Your task to perform on an android device: Go to sound settings Image 0: 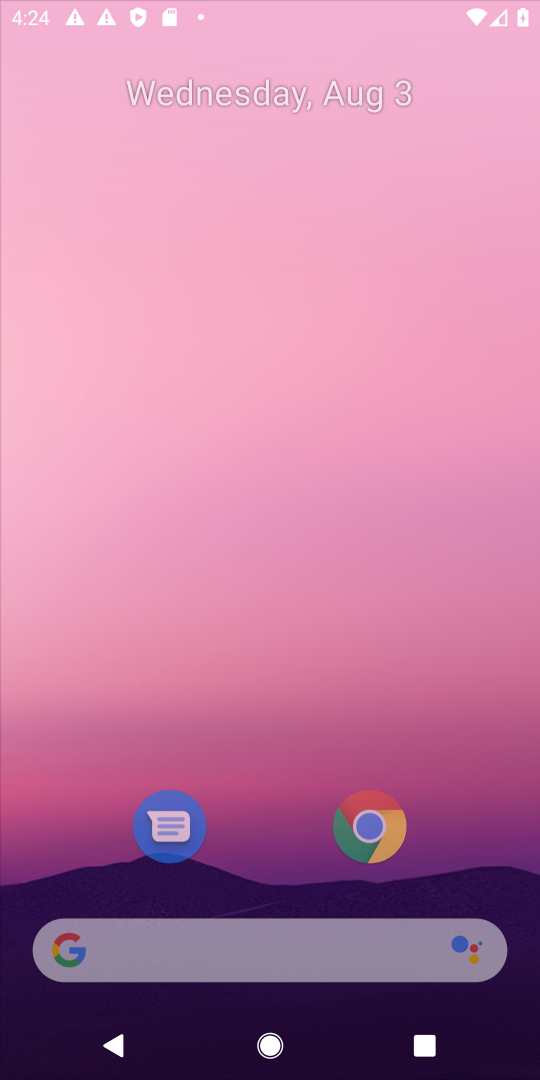
Step 0: press back button
Your task to perform on an android device: Go to sound settings Image 1: 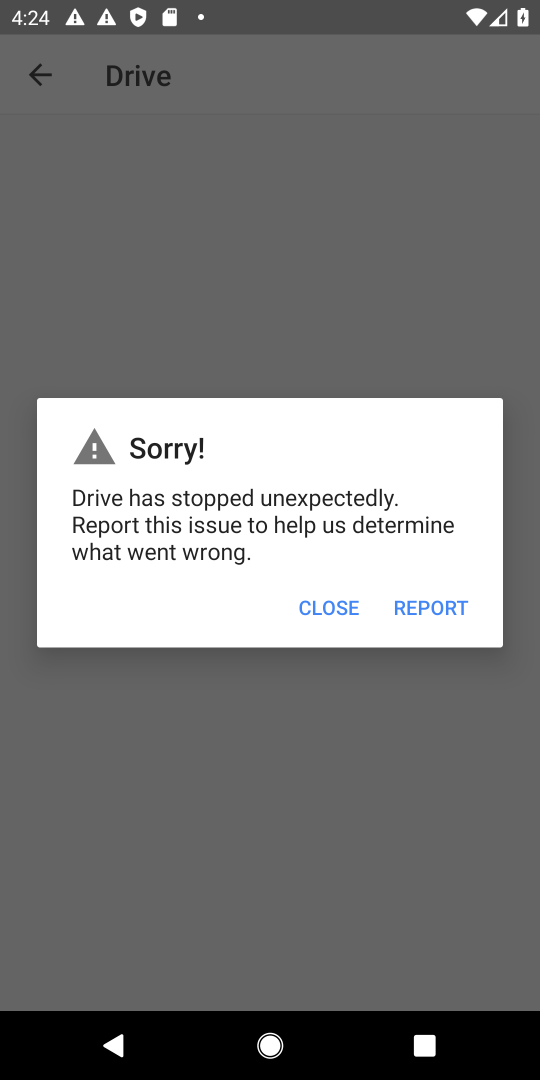
Step 1: press home button
Your task to perform on an android device: Go to sound settings Image 2: 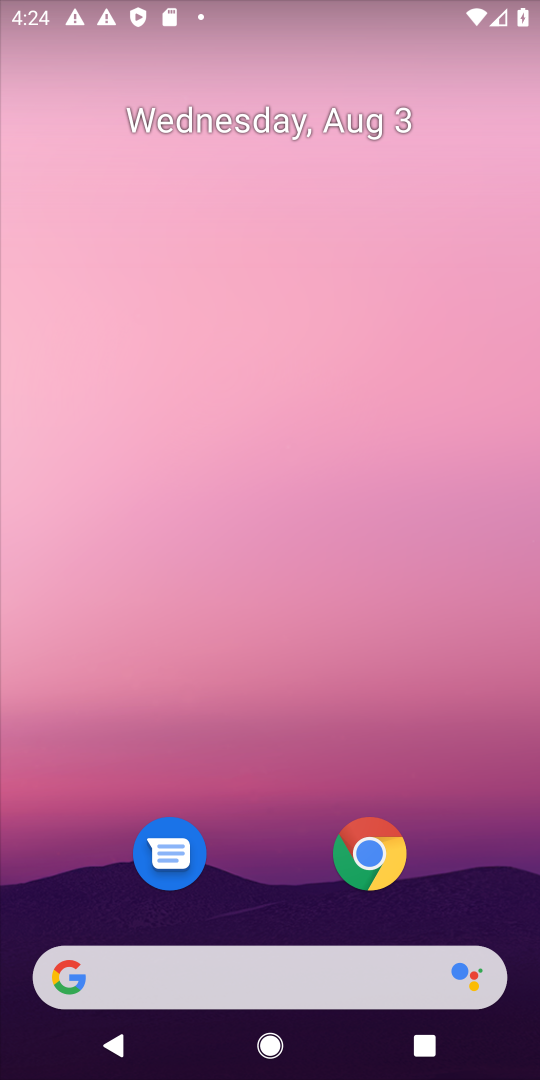
Step 2: drag from (500, 893) to (539, 43)
Your task to perform on an android device: Go to sound settings Image 3: 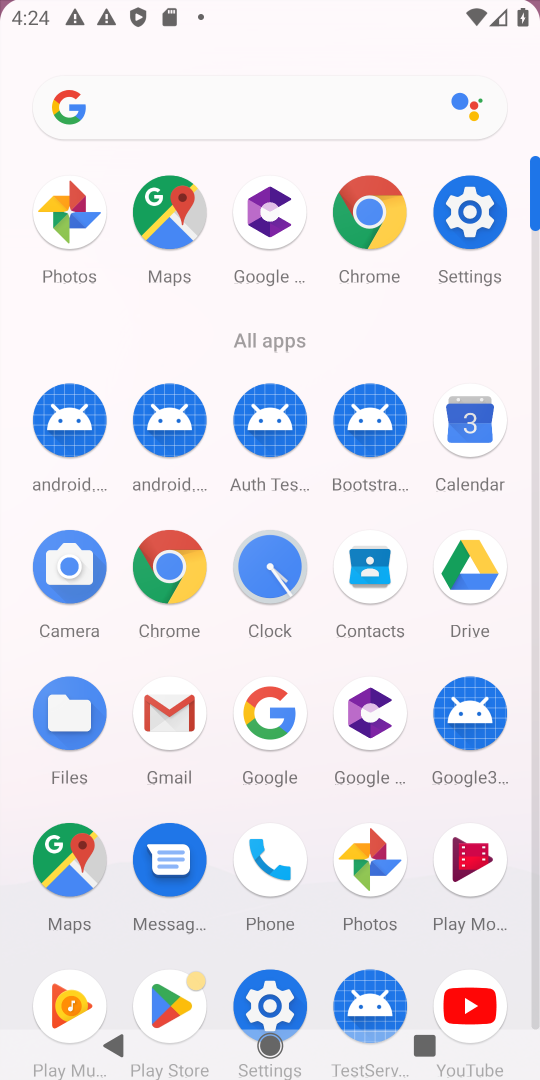
Step 3: click (469, 225)
Your task to perform on an android device: Go to sound settings Image 4: 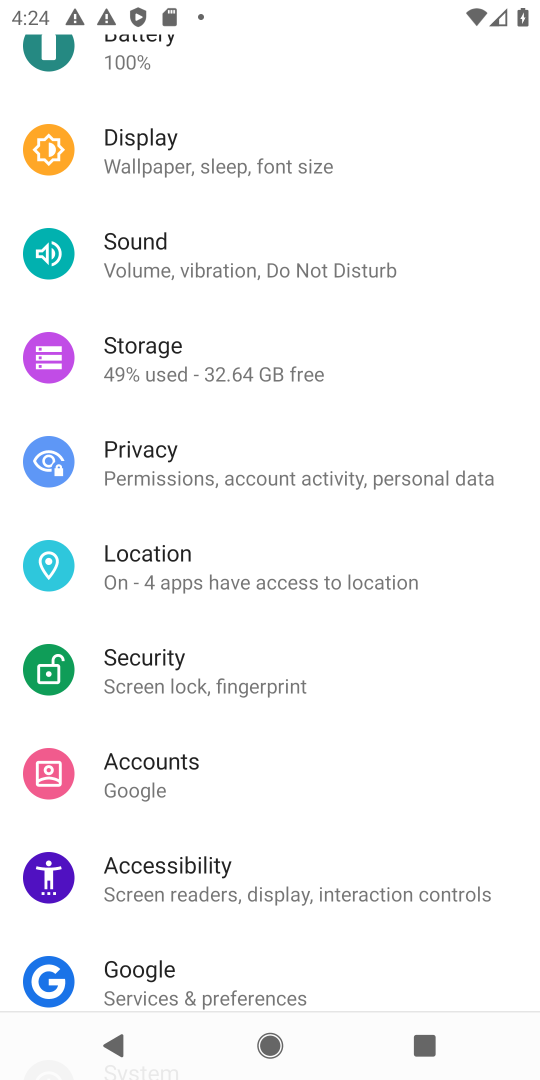
Step 4: click (221, 252)
Your task to perform on an android device: Go to sound settings Image 5: 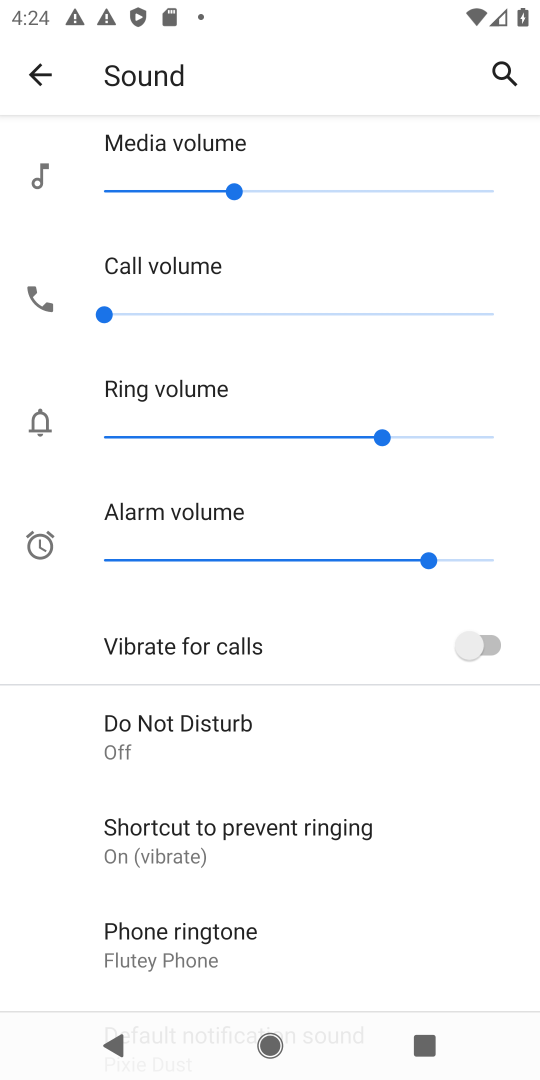
Step 5: task complete